Your task to perform on an android device: Open calendar and show me the first week of next month Image 0: 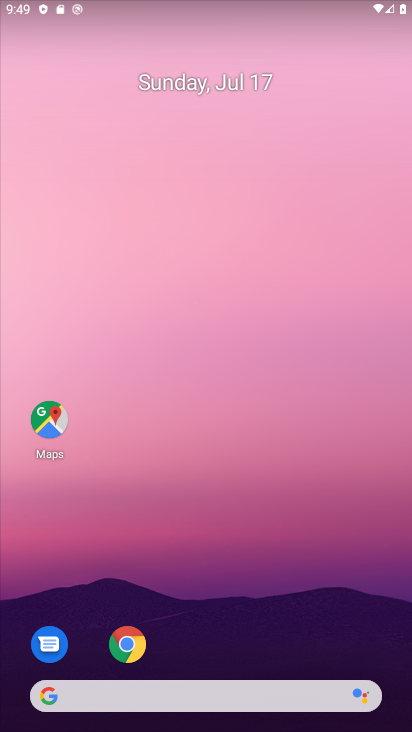
Step 0: drag from (209, 583) to (194, 132)
Your task to perform on an android device: Open calendar and show me the first week of next month Image 1: 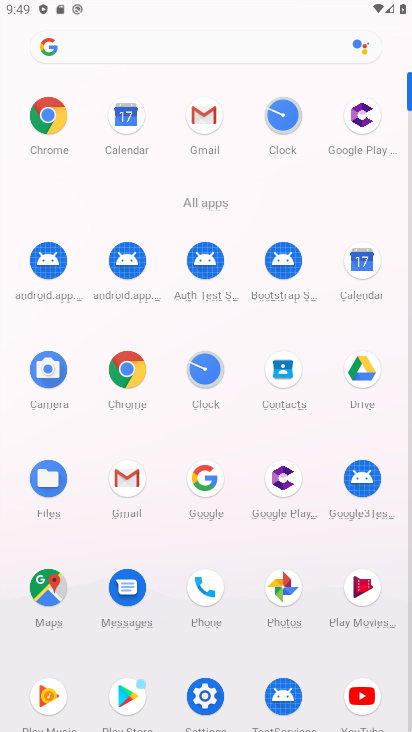
Step 1: click (364, 257)
Your task to perform on an android device: Open calendar and show me the first week of next month Image 2: 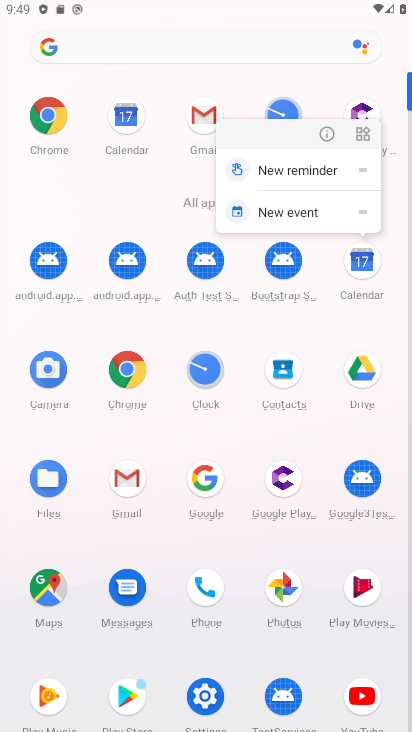
Step 2: click (356, 257)
Your task to perform on an android device: Open calendar and show me the first week of next month Image 3: 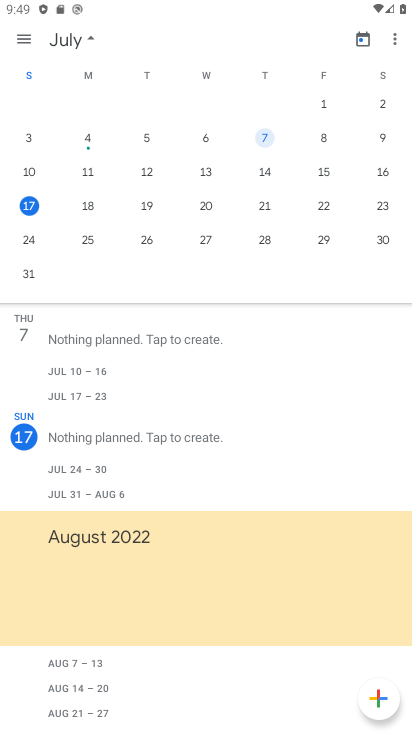
Step 3: drag from (360, 223) to (8, 196)
Your task to perform on an android device: Open calendar and show me the first week of next month Image 4: 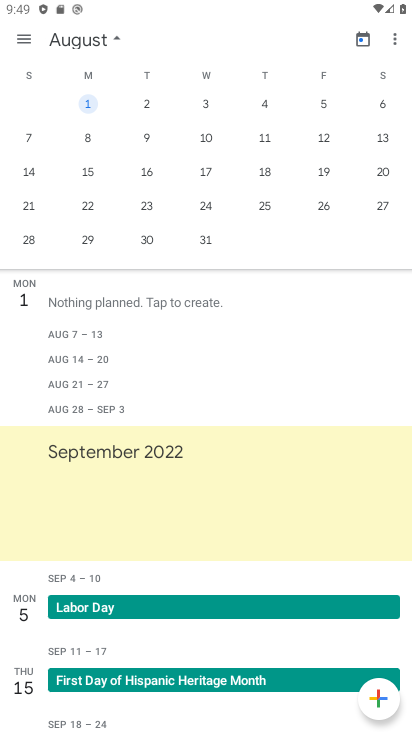
Step 4: click (23, 140)
Your task to perform on an android device: Open calendar and show me the first week of next month Image 5: 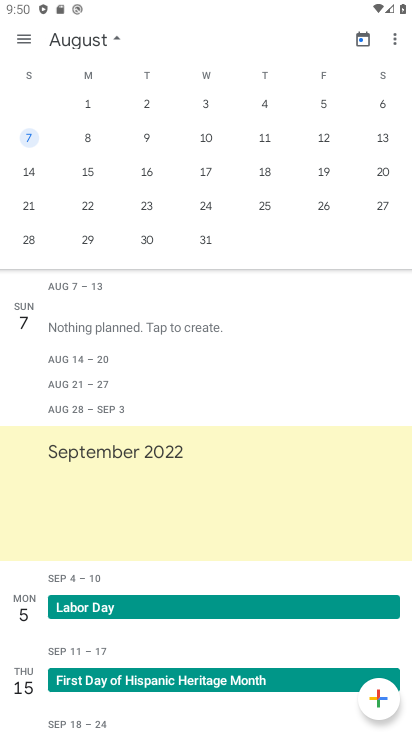
Step 5: click (381, 109)
Your task to perform on an android device: Open calendar and show me the first week of next month Image 6: 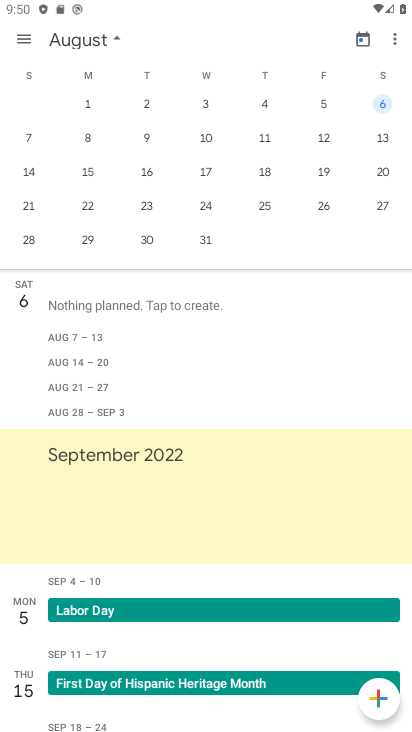
Step 6: task complete